Your task to perform on an android device: make emails show in primary in the gmail app Image 0: 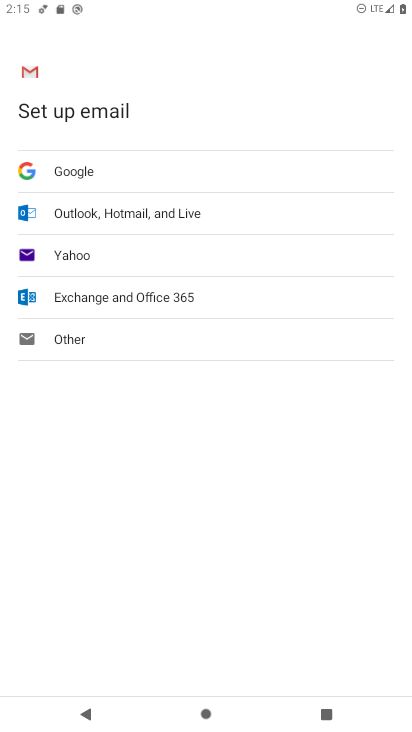
Step 0: press home button
Your task to perform on an android device: make emails show in primary in the gmail app Image 1: 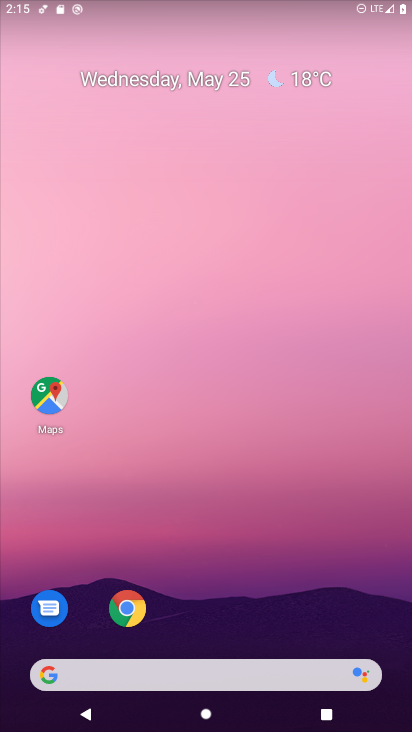
Step 1: drag from (386, 631) to (334, 29)
Your task to perform on an android device: make emails show in primary in the gmail app Image 2: 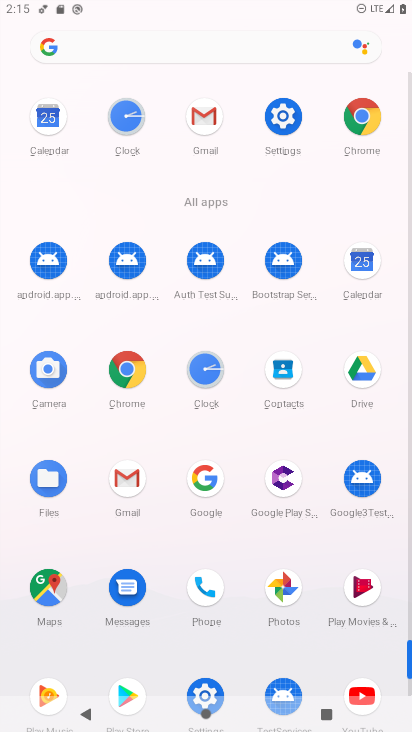
Step 2: click (411, 689)
Your task to perform on an android device: make emails show in primary in the gmail app Image 3: 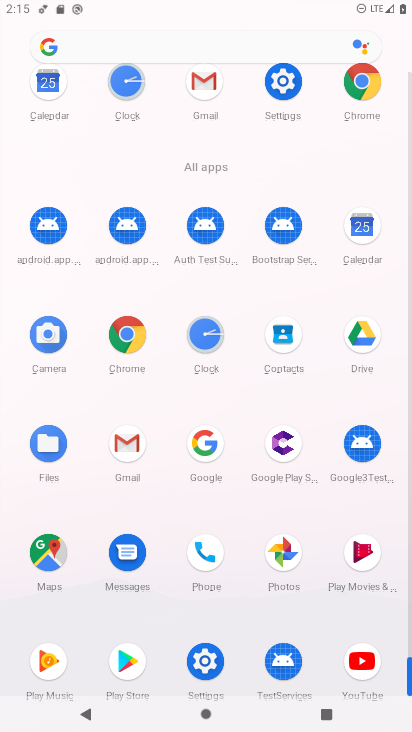
Step 3: click (123, 440)
Your task to perform on an android device: make emails show in primary in the gmail app Image 4: 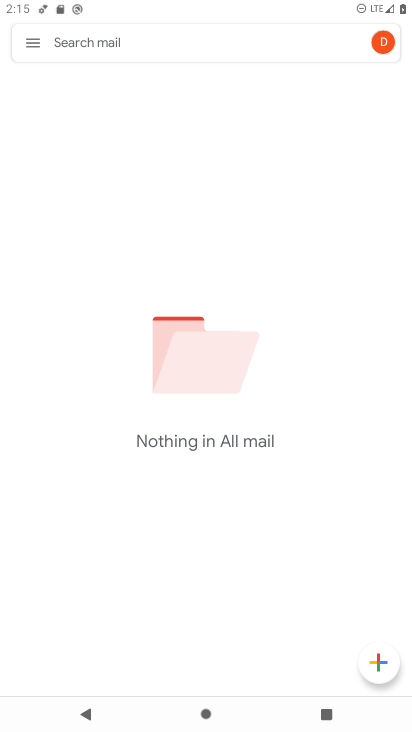
Step 4: click (29, 38)
Your task to perform on an android device: make emails show in primary in the gmail app Image 5: 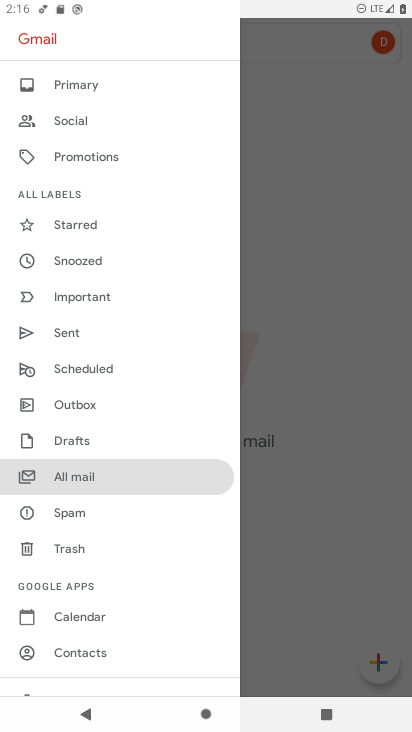
Step 5: drag from (128, 644) to (138, 212)
Your task to perform on an android device: make emails show in primary in the gmail app Image 6: 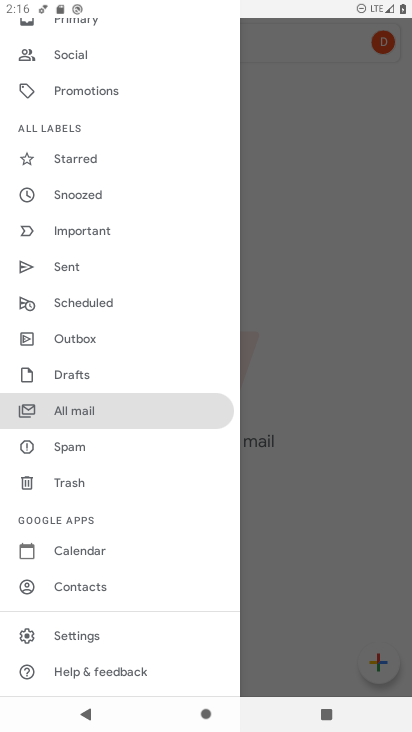
Step 6: click (78, 625)
Your task to perform on an android device: make emails show in primary in the gmail app Image 7: 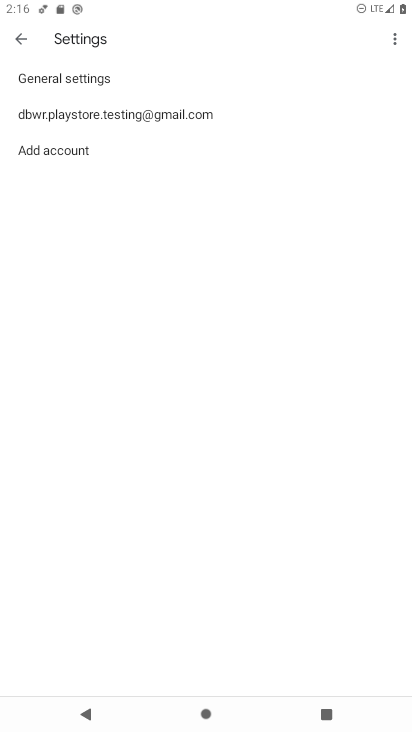
Step 7: click (118, 102)
Your task to perform on an android device: make emails show in primary in the gmail app Image 8: 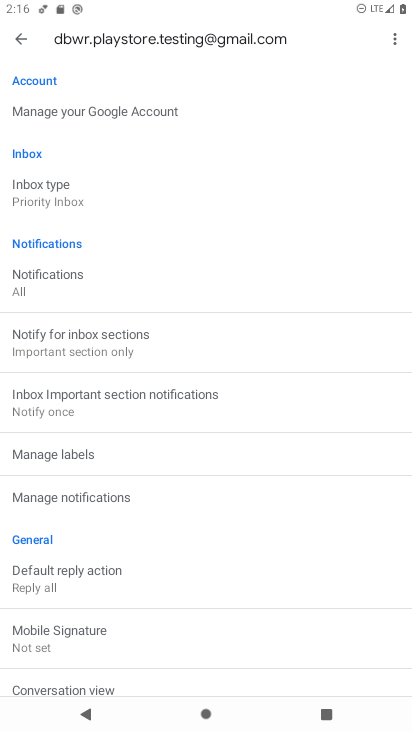
Step 8: click (50, 188)
Your task to perform on an android device: make emails show in primary in the gmail app Image 9: 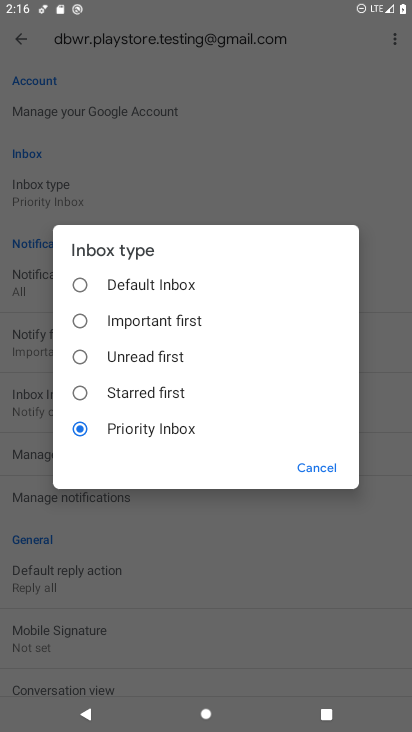
Step 9: click (79, 281)
Your task to perform on an android device: make emails show in primary in the gmail app Image 10: 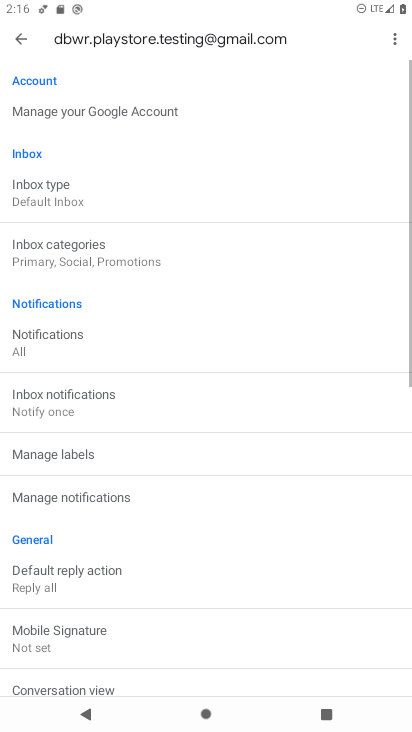
Step 10: click (42, 256)
Your task to perform on an android device: make emails show in primary in the gmail app Image 11: 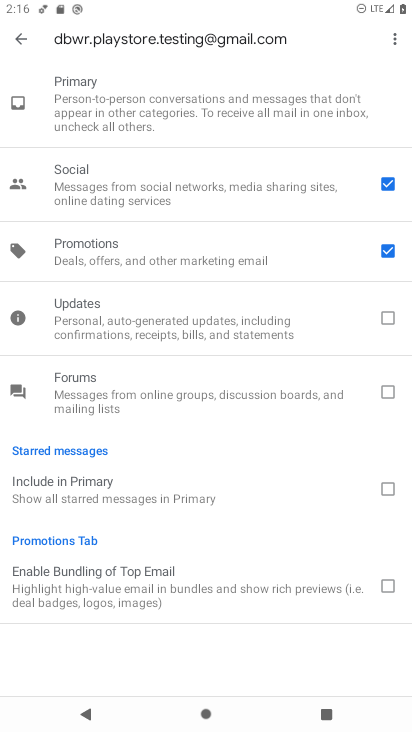
Step 11: click (385, 248)
Your task to perform on an android device: make emails show in primary in the gmail app Image 12: 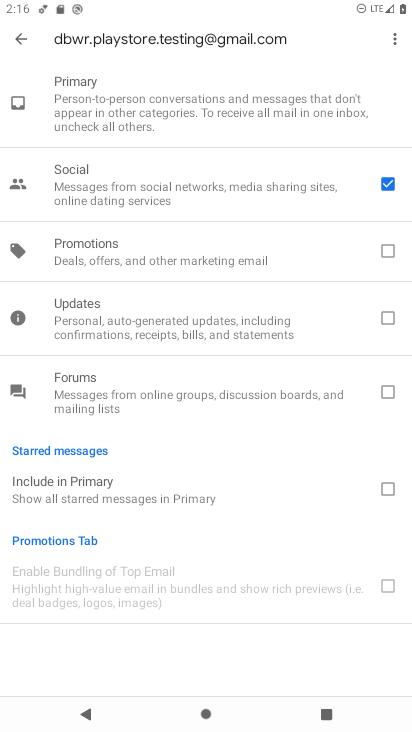
Step 12: click (385, 182)
Your task to perform on an android device: make emails show in primary in the gmail app Image 13: 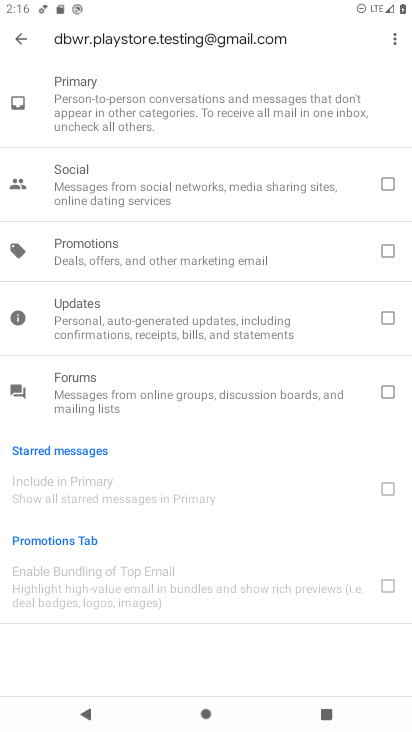
Step 13: task complete